Your task to perform on an android device: Is it going to rain tomorrow? Image 0: 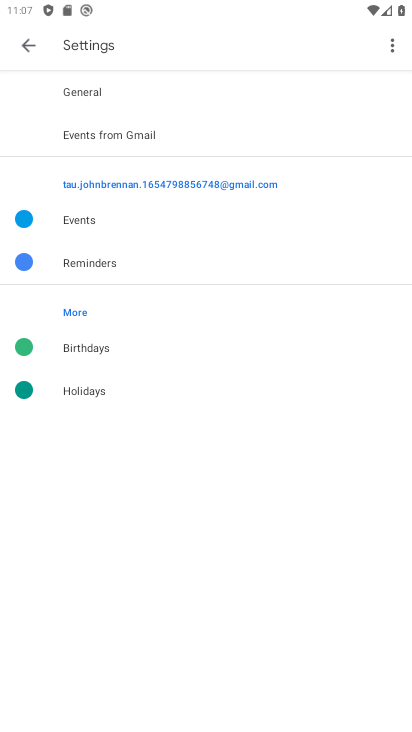
Step 0: drag from (234, 717) to (311, 367)
Your task to perform on an android device: Is it going to rain tomorrow? Image 1: 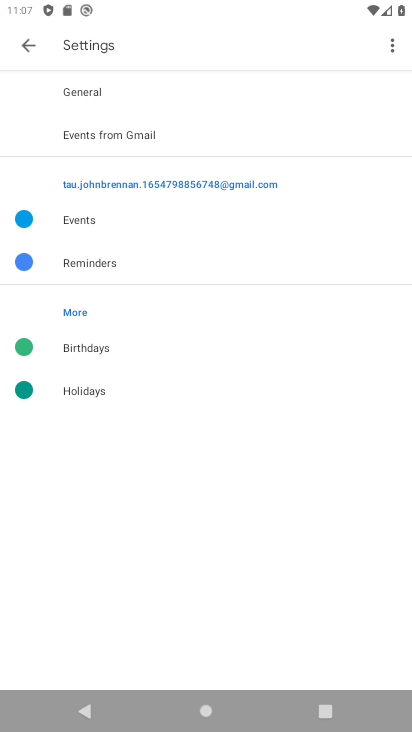
Step 1: press home button
Your task to perform on an android device: Is it going to rain tomorrow? Image 2: 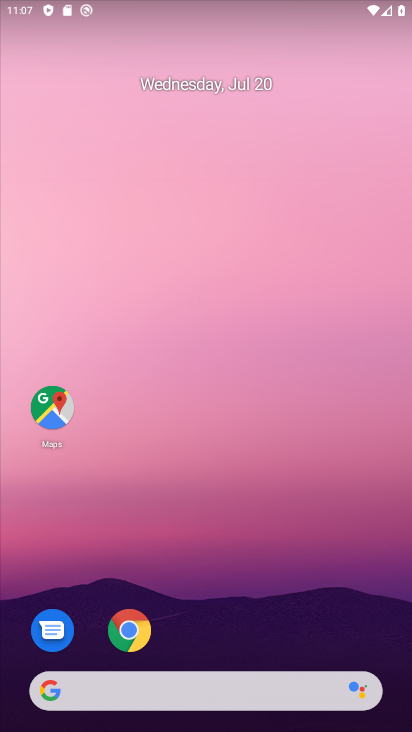
Step 2: drag from (266, 690) to (313, 195)
Your task to perform on an android device: Is it going to rain tomorrow? Image 3: 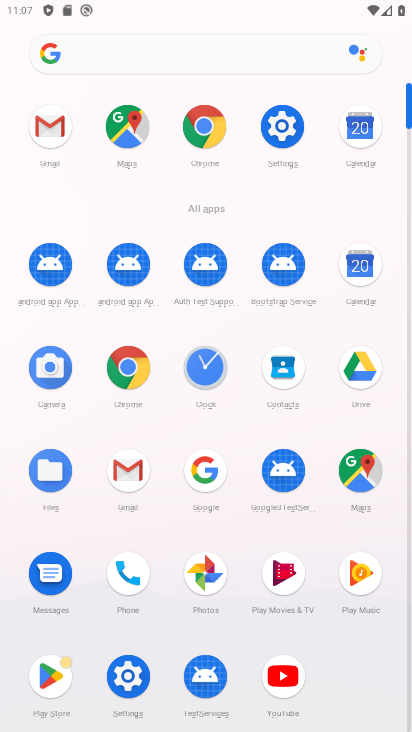
Step 3: click (111, 50)
Your task to perform on an android device: Is it going to rain tomorrow? Image 4: 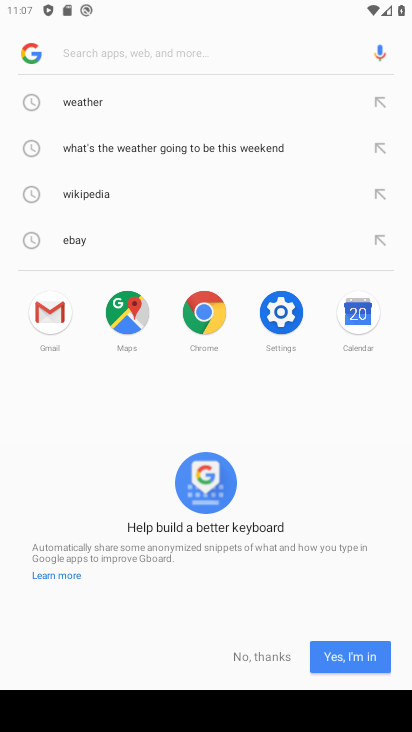
Step 4: click (237, 646)
Your task to perform on an android device: Is it going to rain tomorrow? Image 5: 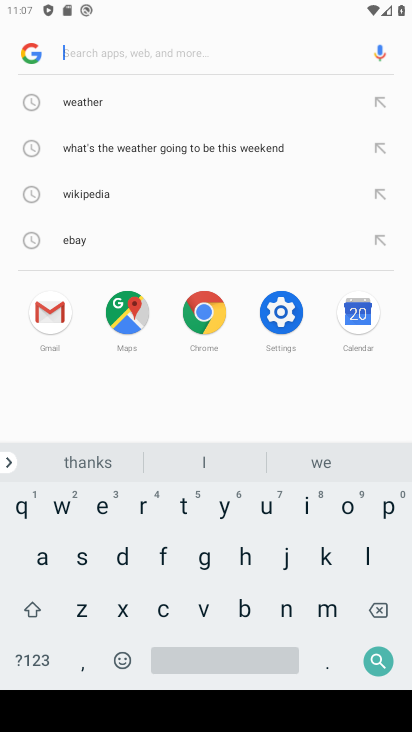
Step 5: click (304, 497)
Your task to perform on an android device: Is it going to rain tomorrow? Image 6: 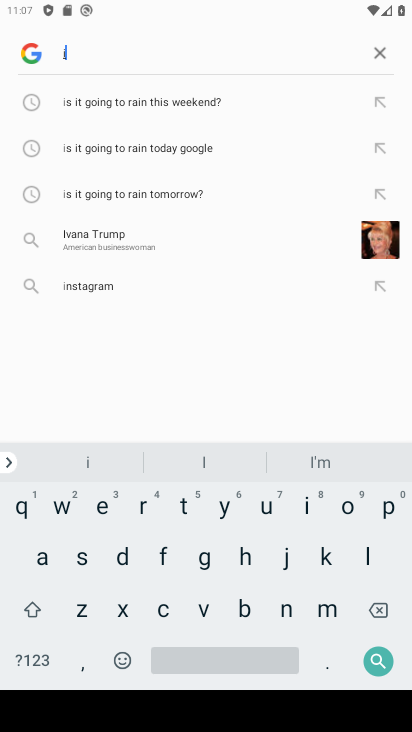
Step 6: click (138, 105)
Your task to perform on an android device: Is it going to rain tomorrow? Image 7: 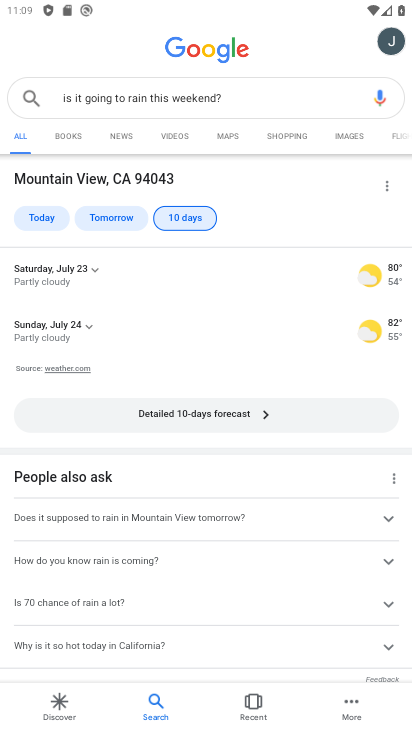
Step 7: task complete